Your task to perform on an android device: set the timer Image 0: 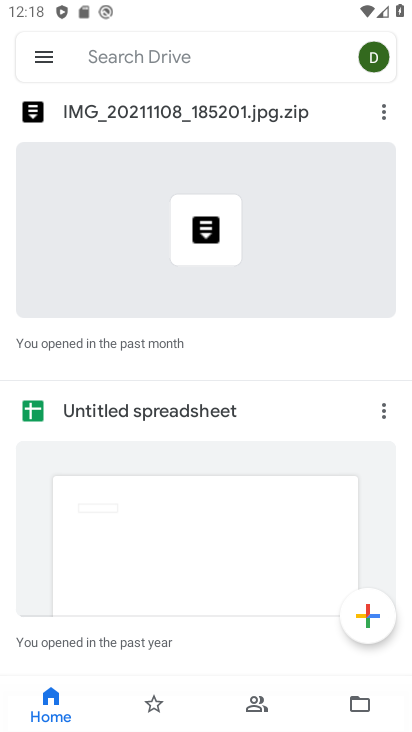
Step 0: press home button
Your task to perform on an android device: set the timer Image 1: 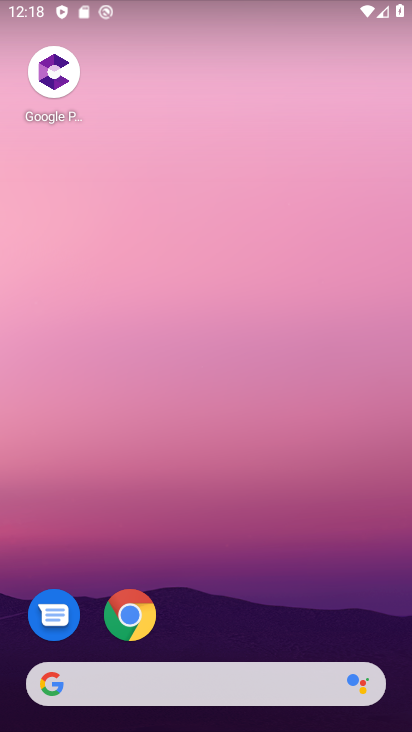
Step 1: drag from (305, 563) to (336, 109)
Your task to perform on an android device: set the timer Image 2: 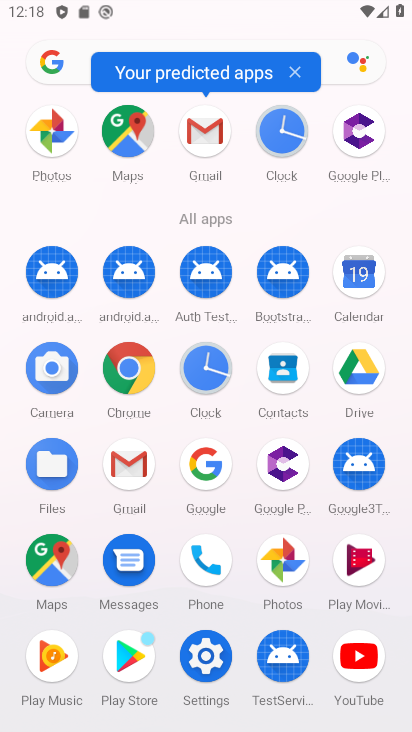
Step 2: click (285, 137)
Your task to perform on an android device: set the timer Image 3: 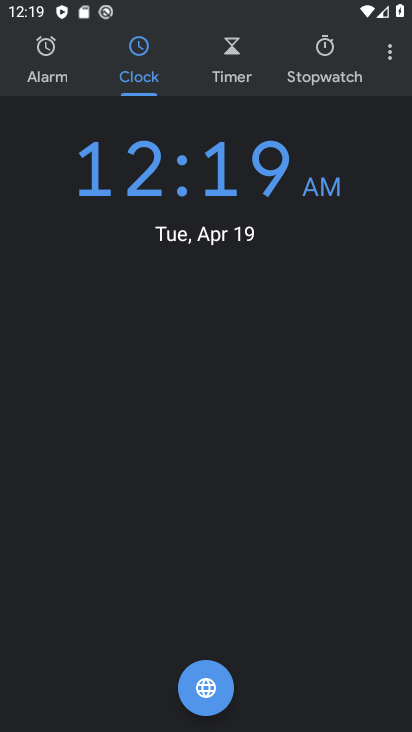
Step 3: click (248, 70)
Your task to perform on an android device: set the timer Image 4: 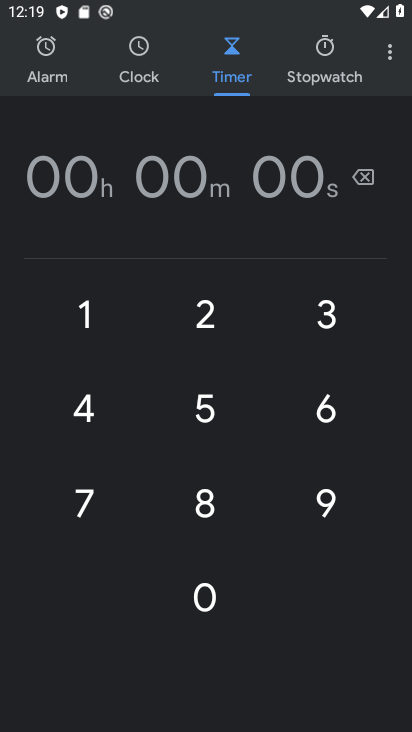
Step 4: click (208, 516)
Your task to perform on an android device: set the timer Image 5: 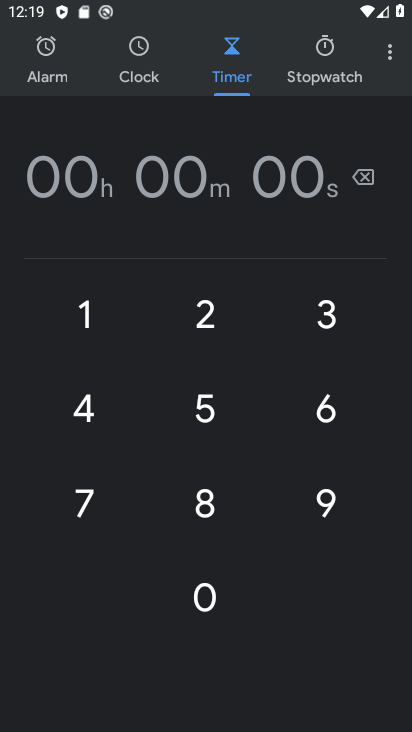
Step 5: click (208, 516)
Your task to perform on an android device: set the timer Image 6: 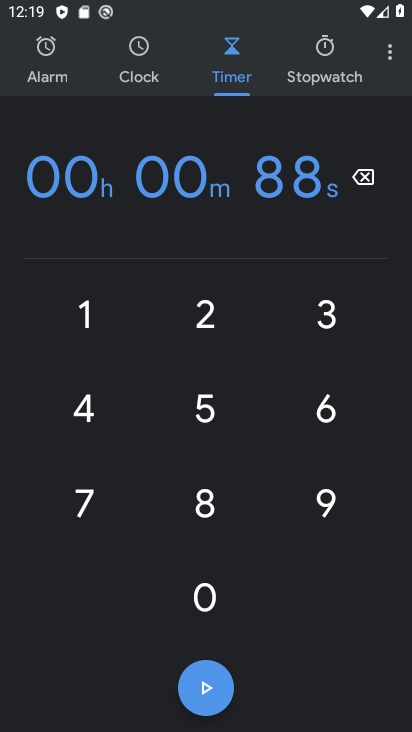
Step 6: click (204, 584)
Your task to perform on an android device: set the timer Image 7: 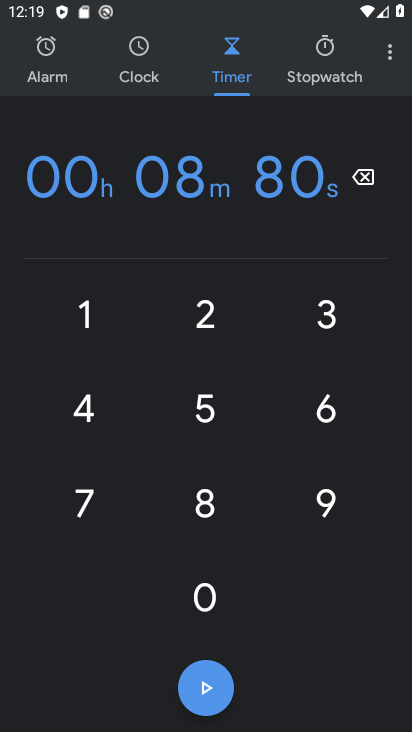
Step 7: task complete